Your task to perform on an android device: set the stopwatch Image 0: 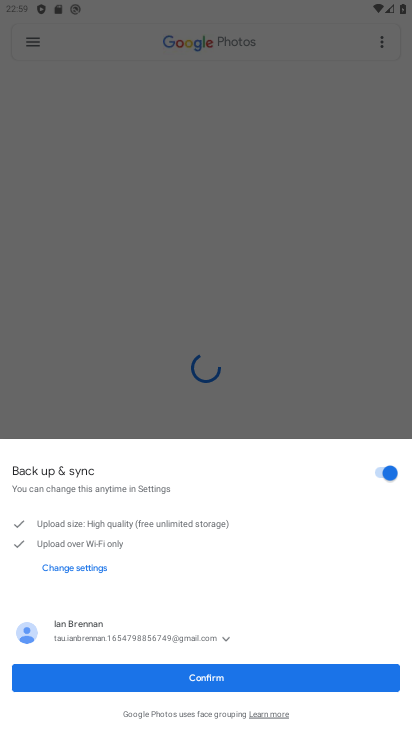
Step 0: press home button
Your task to perform on an android device: set the stopwatch Image 1: 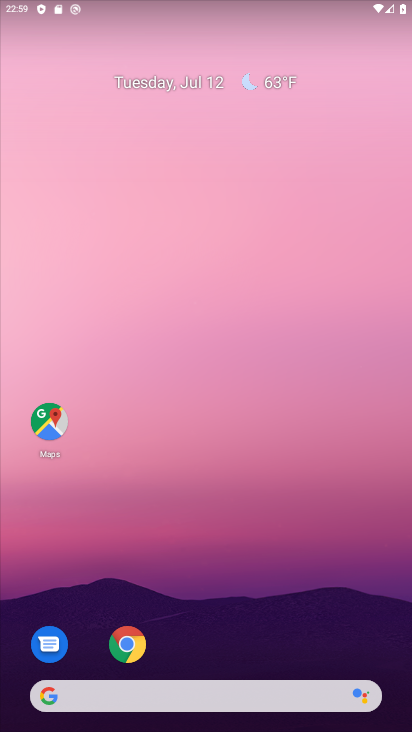
Step 1: drag from (223, 628) to (198, 128)
Your task to perform on an android device: set the stopwatch Image 2: 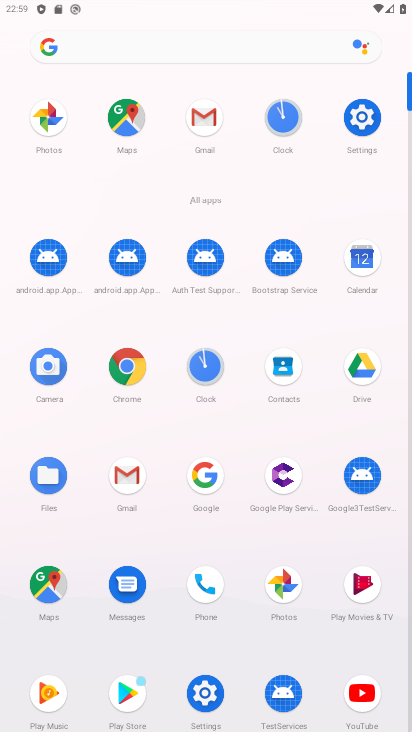
Step 2: click (289, 120)
Your task to perform on an android device: set the stopwatch Image 3: 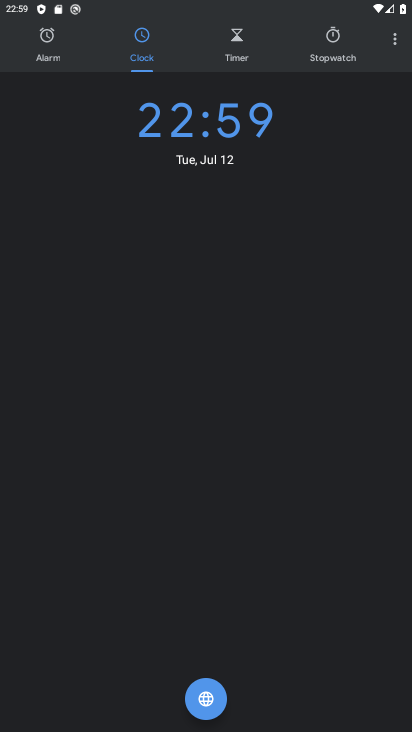
Step 3: click (322, 64)
Your task to perform on an android device: set the stopwatch Image 4: 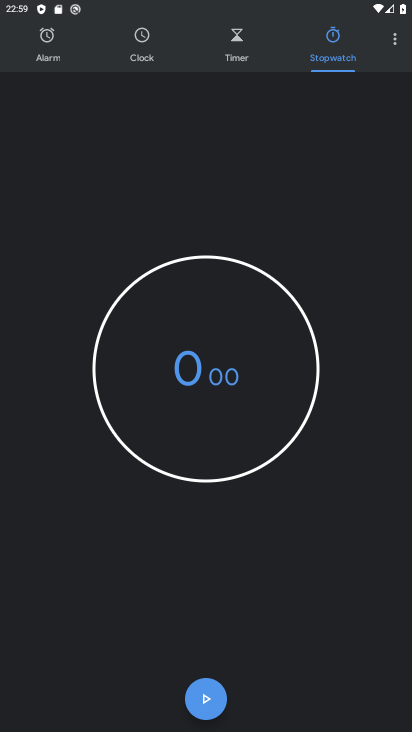
Step 4: click (208, 700)
Your task to perform on an android device: set the stopwatch Image 5: 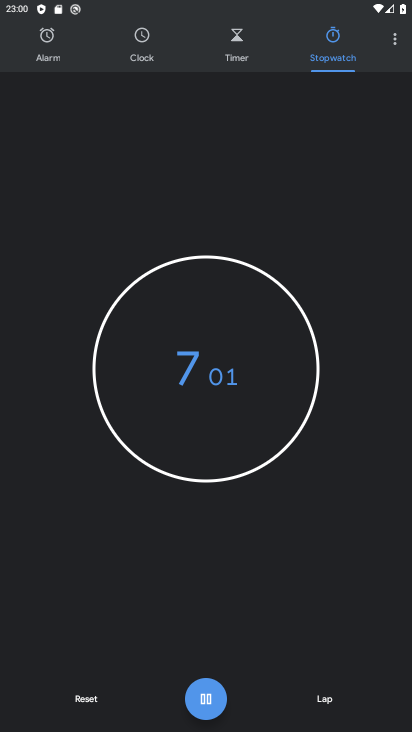
Step 5: task complete